Your task to perform on an android device: Go to calendar. Show me events next week Image 0: 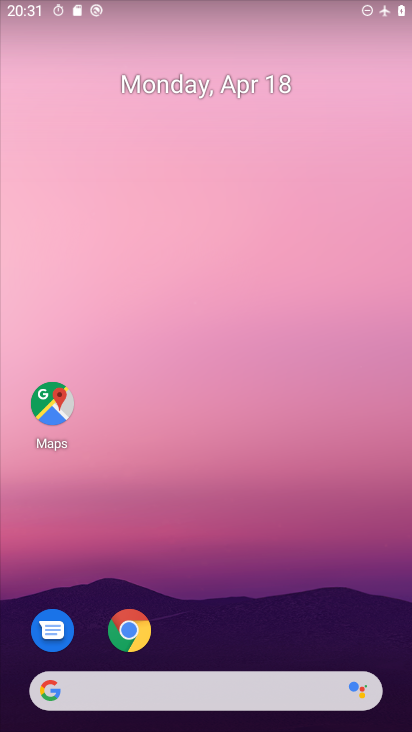
Step 0: drag from (243, 610) to (307, 141)
Your task to perform on an android device: Go to calendar. Show me events next week Image 1: 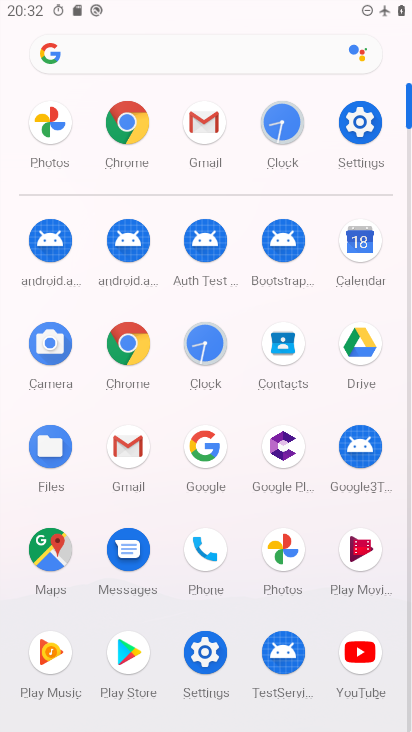
Step 1: click (356, 233)
Your task to perform on an android device: Go to calendar. Show me events next week Image 2: 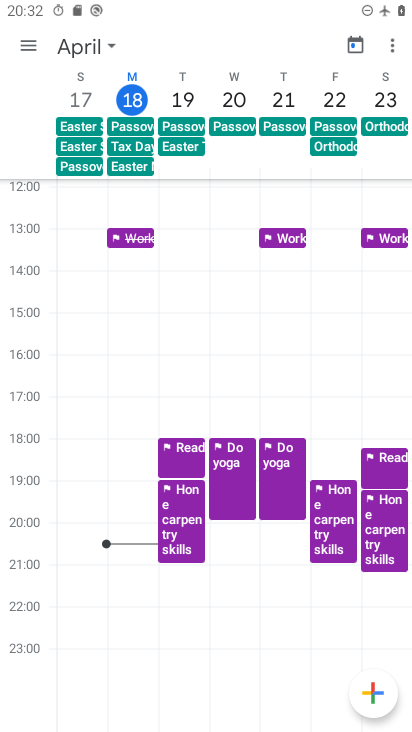
Step 2: click (31, 43)
Your task to perform on an android device: Go to calendar. Show me events next week Image 3: 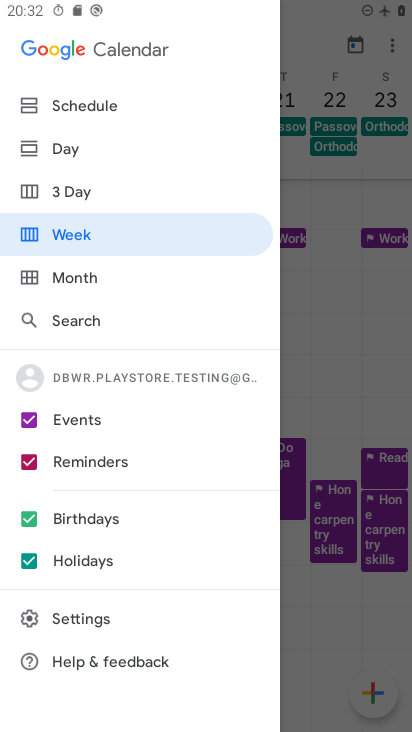
Step 3: click (26, 458)
Your task to perform on an android device: Go to calendar. Show me events next week Image 4: 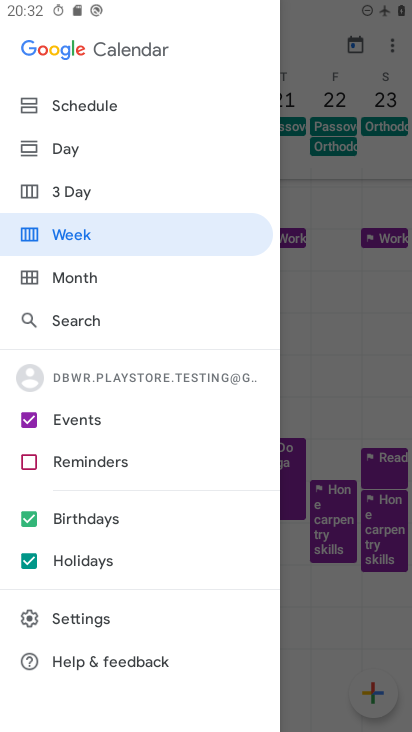
Step 4: click (32, 513)
Your task to perform on an android device: Go to calendar. Show me events next week Image 5: 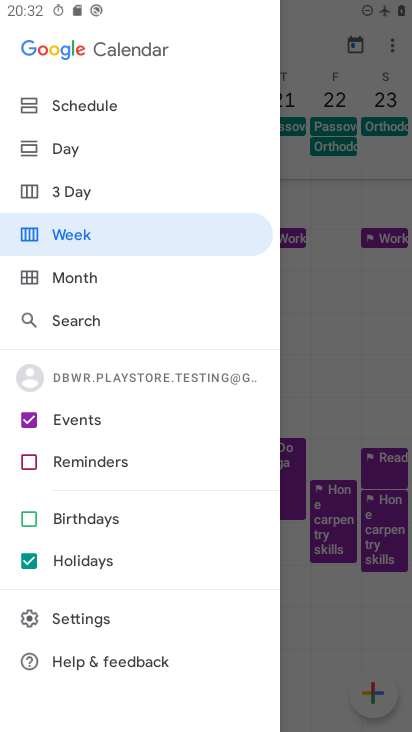
Step 5: click (25, 566)
Your task to perform on an android device: Go to calendar. Show me events next week Image 6: 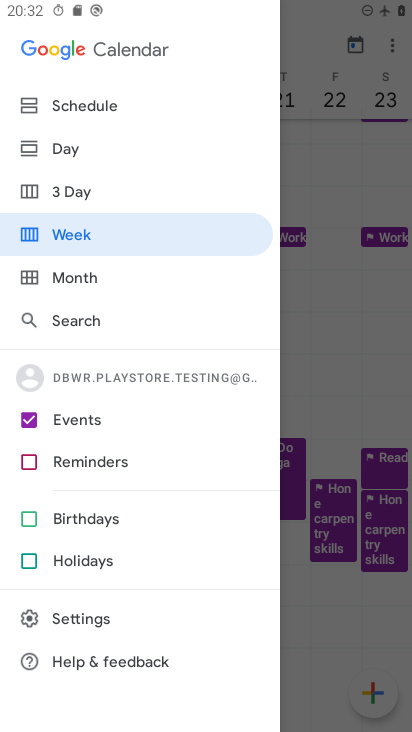
Step 6: click (94, 236)
Your task to perform on an android device: Go to calendar. Show me events next week Image 7: 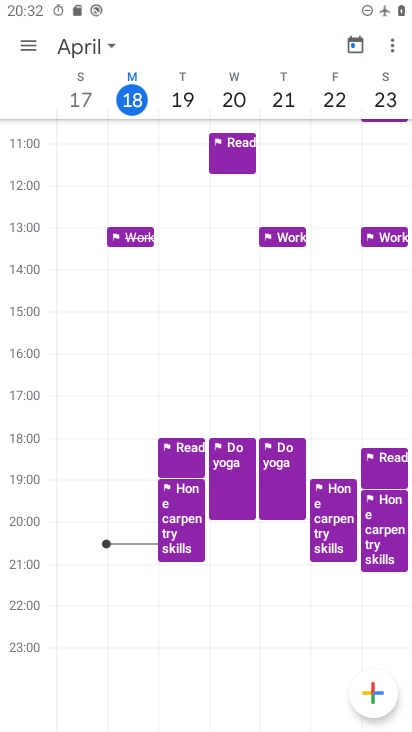
Step 7: task complete